Your task to perform on an android device: Search for vegetarian restaurants on Maps Image 0: 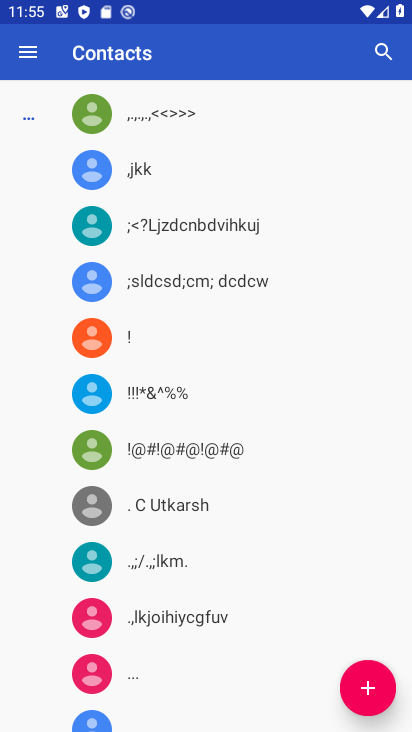
Step 0: press home button
Your task to perform on an android device: Search for vegetarian restaurants on Maps Image 1: 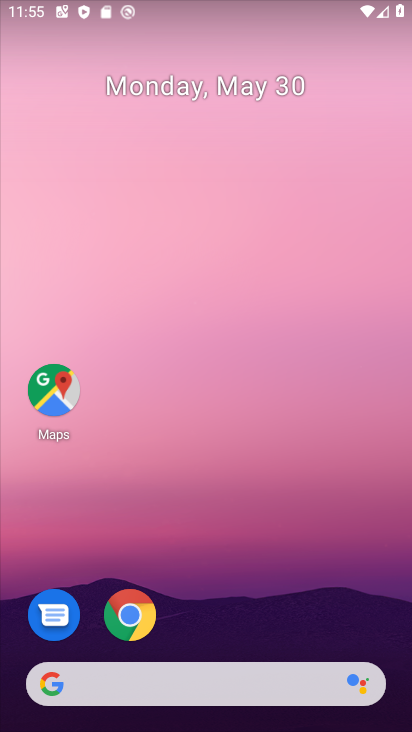
Step 1: click (48, 383)
Your task to perform on an android device: Search for vegetarian restaurants on Maps Image 2: 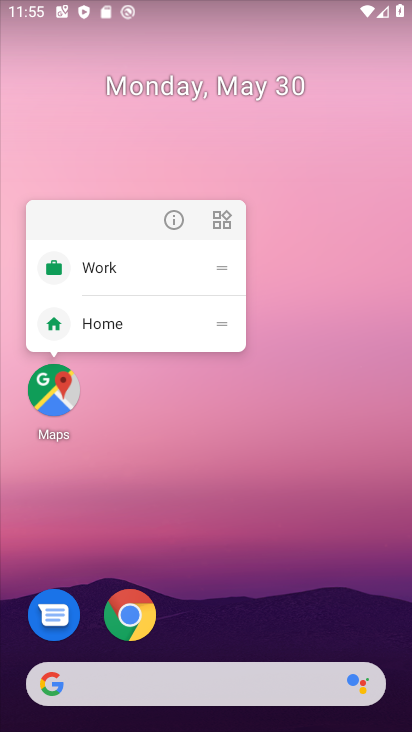
Step 2: click (62, 382)
Your task to perform on an android device: Search for vegetarian restaurants on Maps Image 3: 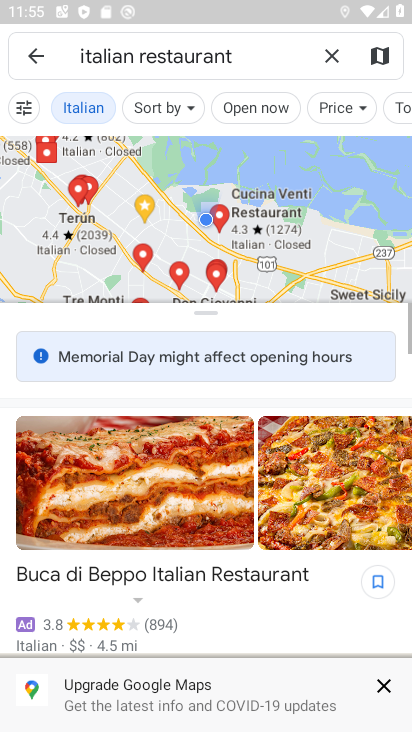
Step 3: click (103, 61)
Your task to perform on an android device: Search for vegetarian restaurants on Maps Image 4: 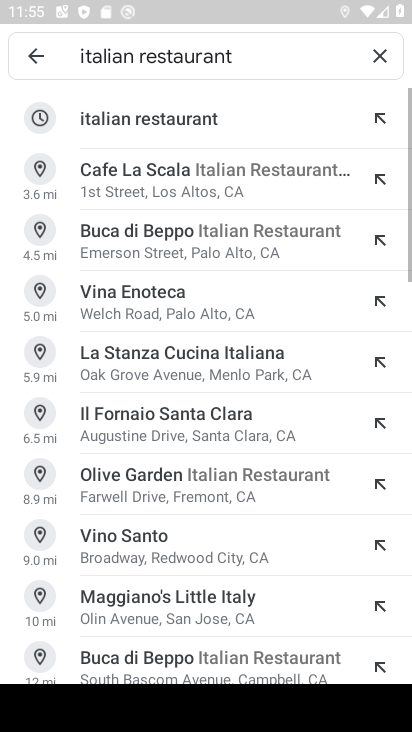
Step 4: click (103, 61)
Your task to perform on an android device: Search for vegetarian restaurants on Maps Image 5: 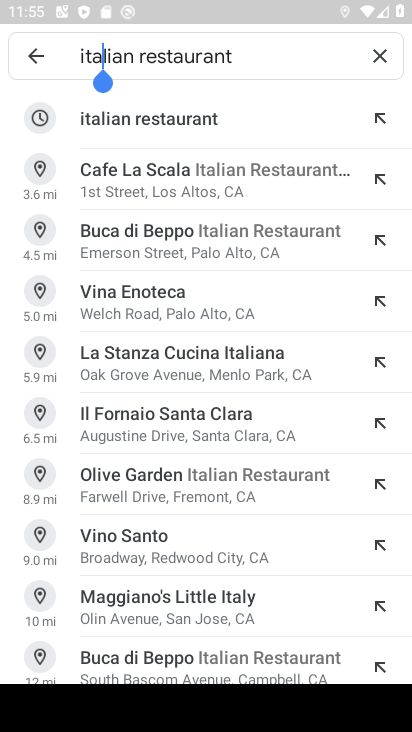
Step 5: click (103, 61)
Your task to perform on an android device: Search for vegetarian restaurants on Maps Image 6: 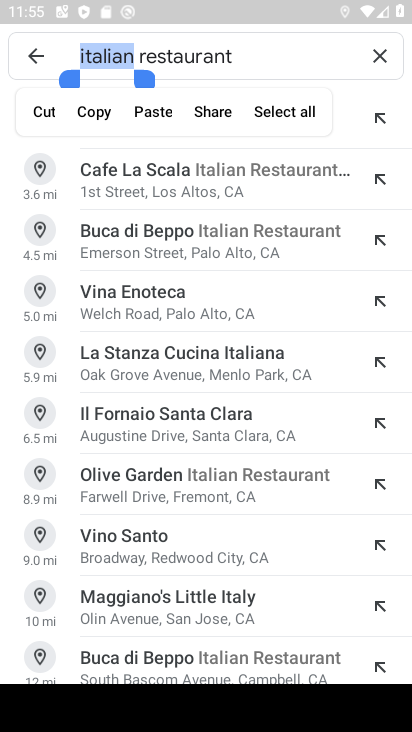
Step 6: type "vegetariian"
Your task to perform on an android device: Search for vegetarian restaurants on Maps Image 7: 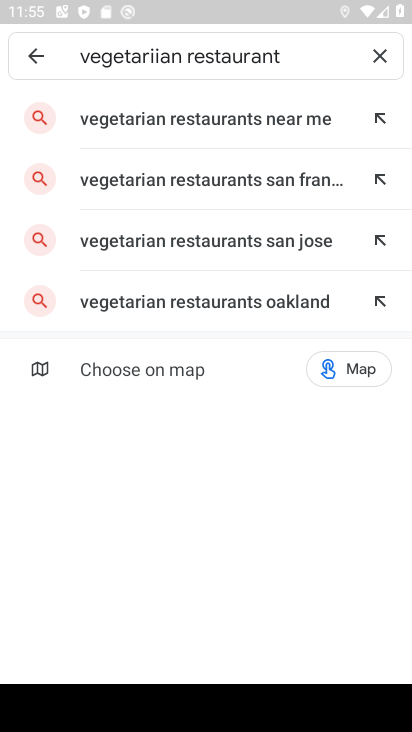
Step 7: click (176, 127)
Your task to perform on an android device: Search for vegetarian restaurants on Maps Image 8: 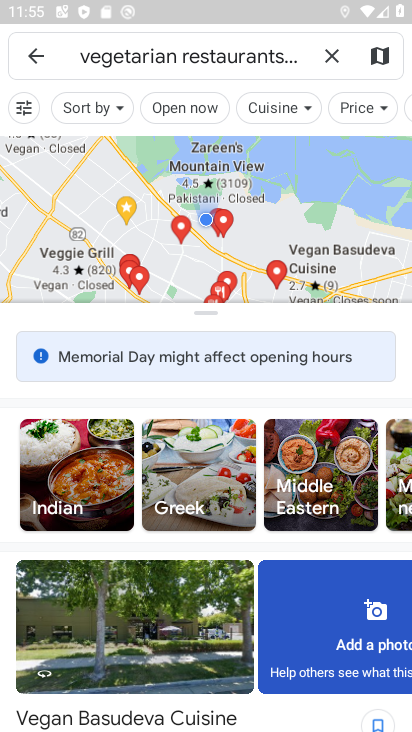
Step 8: task complete